Your task to perform on an android device: Open Yahoo.com Image 0: 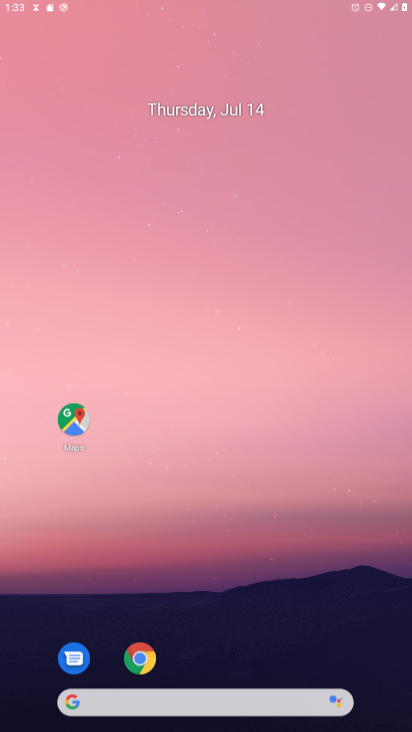
Step 0: drag from (49, 702) to (306, 183)
Your task to perform on an android device: Open Yahoo.com Image 1: 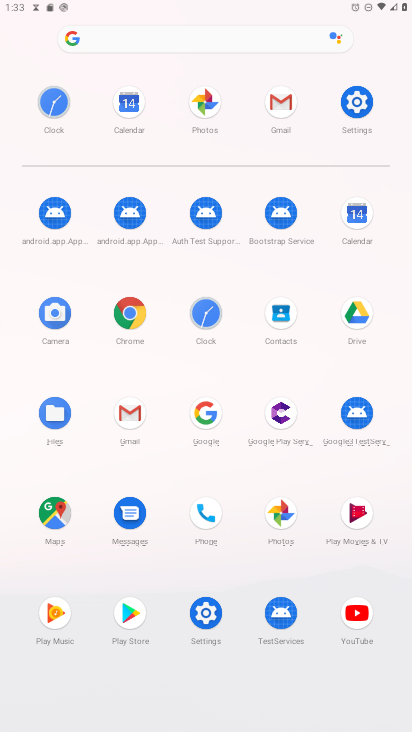
Step 1: click (141, 48)
Your task to perform on an android device: Open Yahoo.com Image 2: 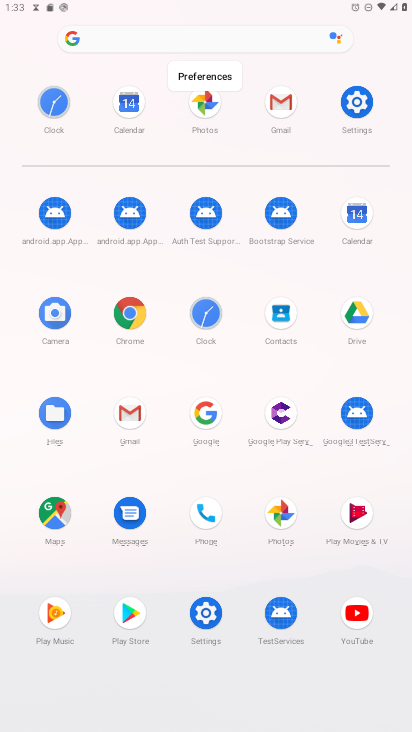
Step 2: click (111, 27)
Your task to perform on an android device: Open Yahoo.com Image 3: 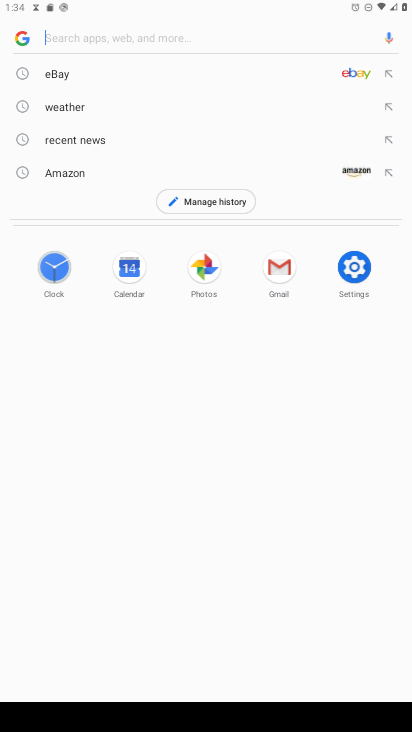
Step 3: click (69, 39)
Your task to perform on an android device: Open Yahoo.com Image 4: 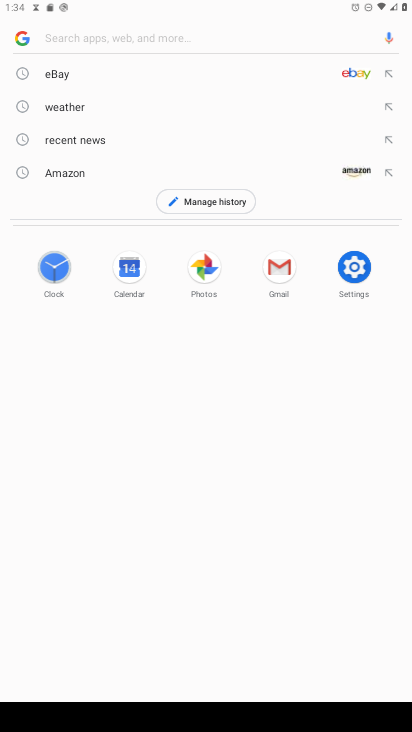
Step 4: type "Yahoo.com"
Your task to perform on an android device: Open Yahoo.com Image 5: 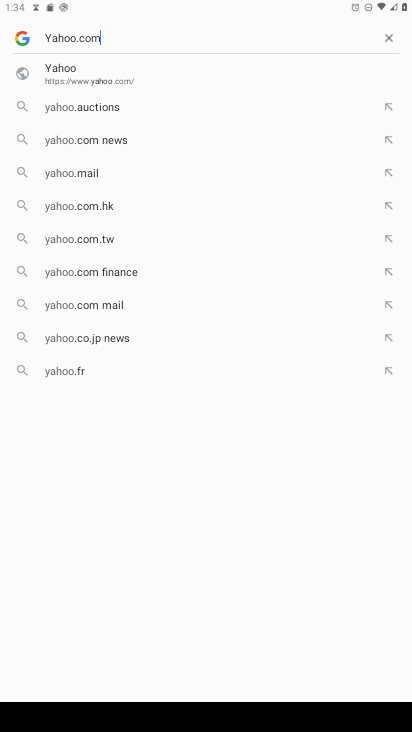
Step 5: type ""
Your task to perform on an android device: Open Yahoo.com Image 6: 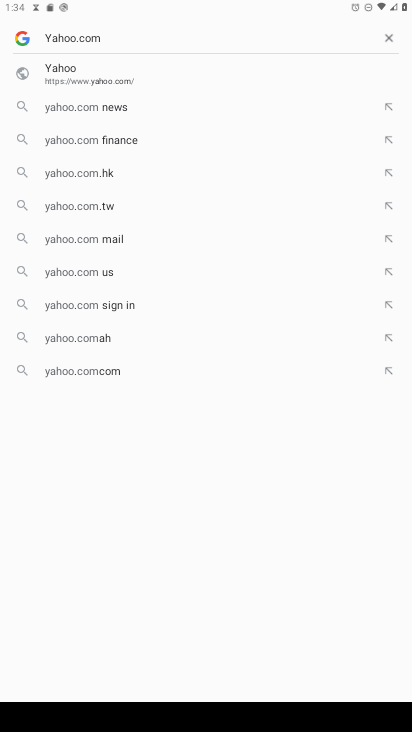
Step 6: click (76, 73)
Your task to perform on an android device: Open Yahoo.com Image 7: 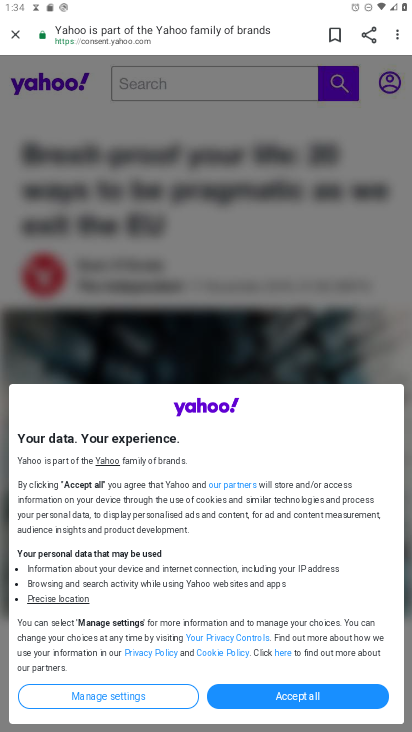
Step 7: task complete